Your task to perform on an android device: Open accessibility settings Image 0: 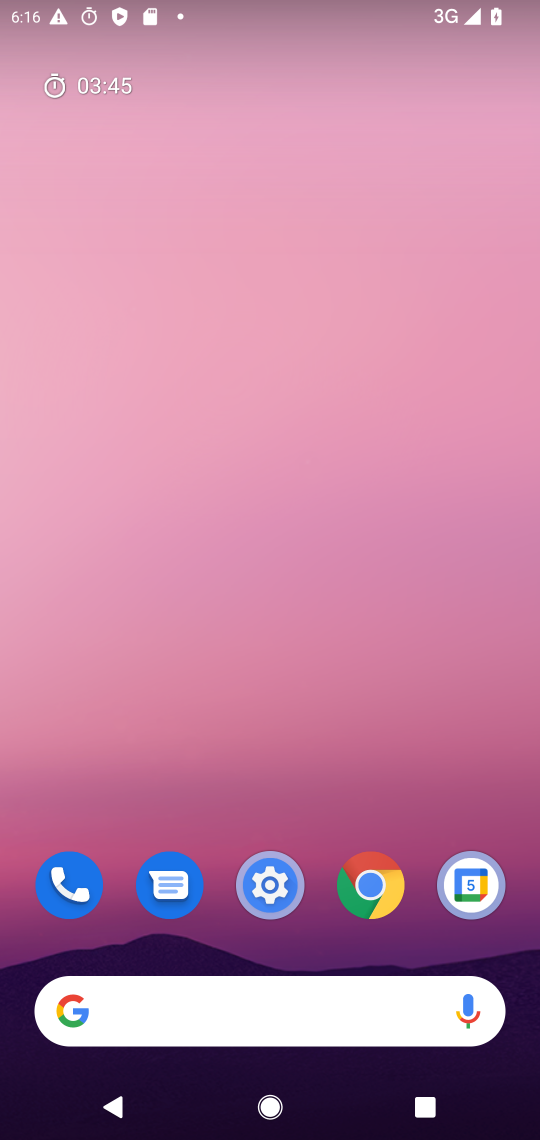
Step 0: drag from (300, 855) to (190, 16)
Your task to perform on an android device: Open accessibility settings Image 1: 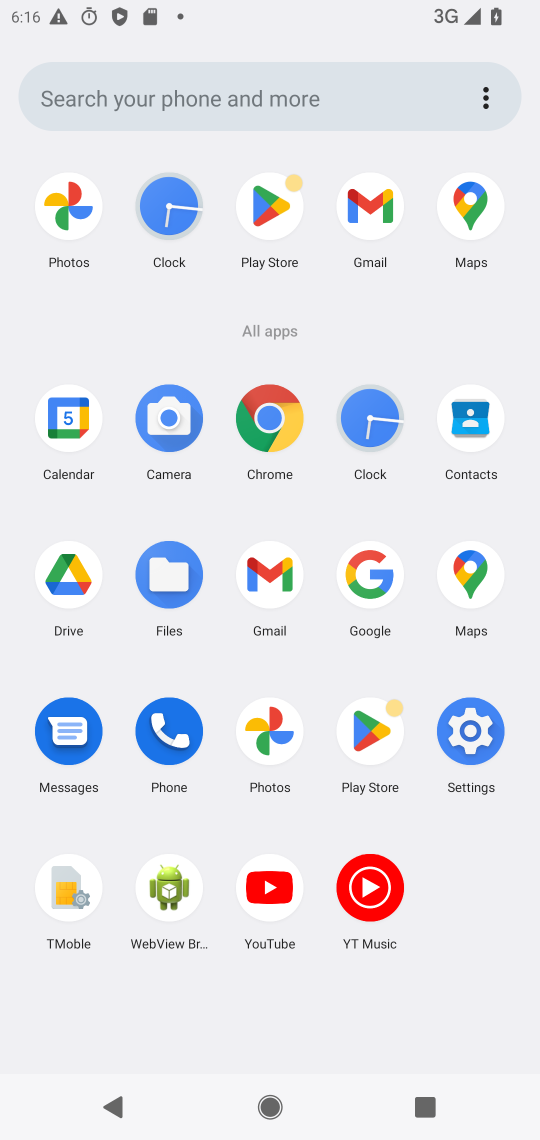
Step 1: click (464, 759)
Your task to perform on an android device: Open accessibility settings Image 2: 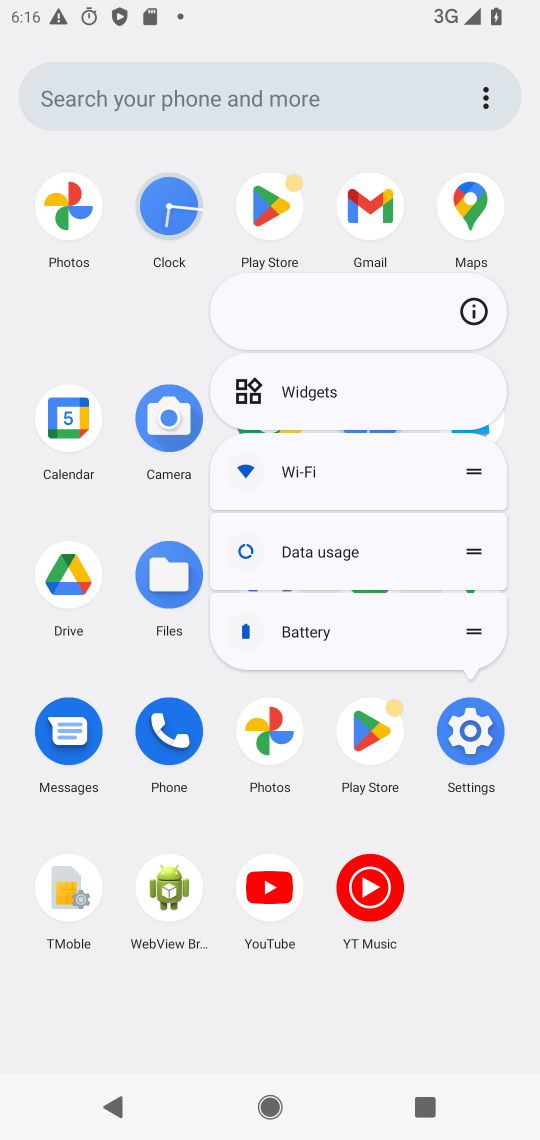
Step 2: click (447, 741)
Your task to perform on an android device: Open accessibility settings Image 3: 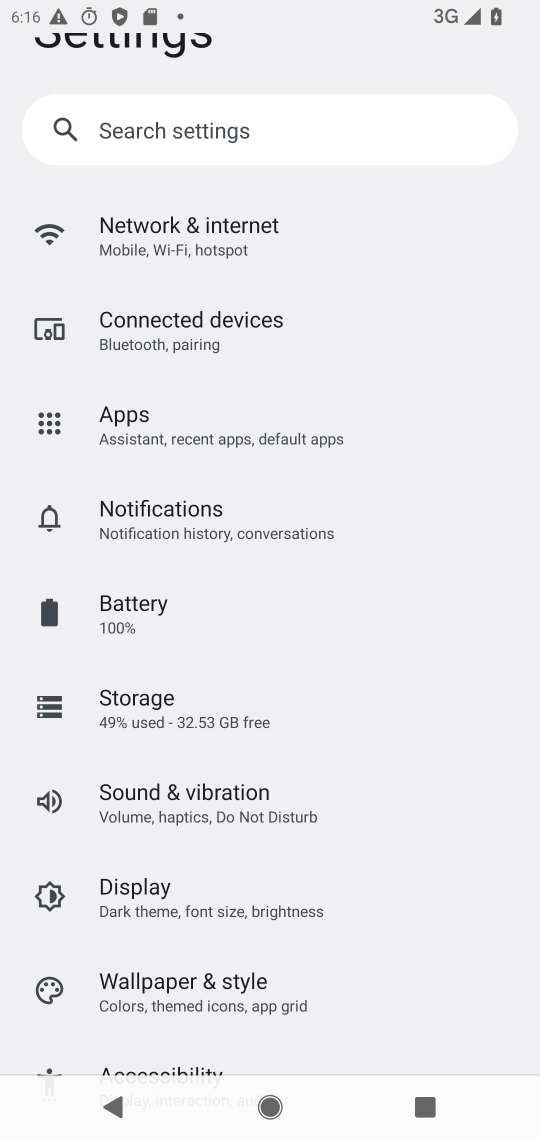
Step 3: drag from (213, 868) to (228, 556)
Your task to perform on an android device: Open accessibility settings Image 4: 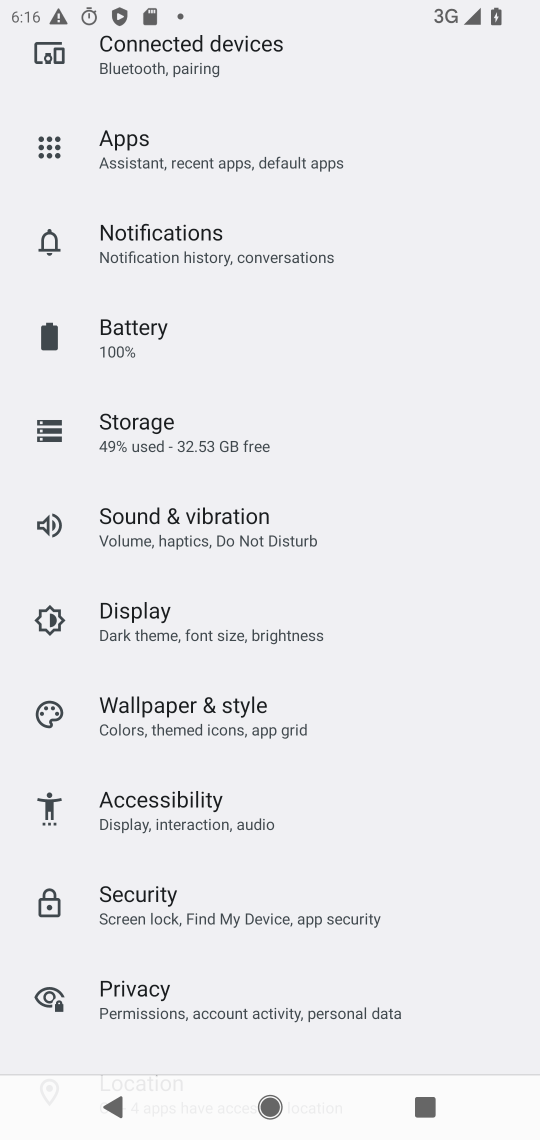
Step 4: click (161, 825)
Your task to perform on an android device: Open accessibility settings Image 5: 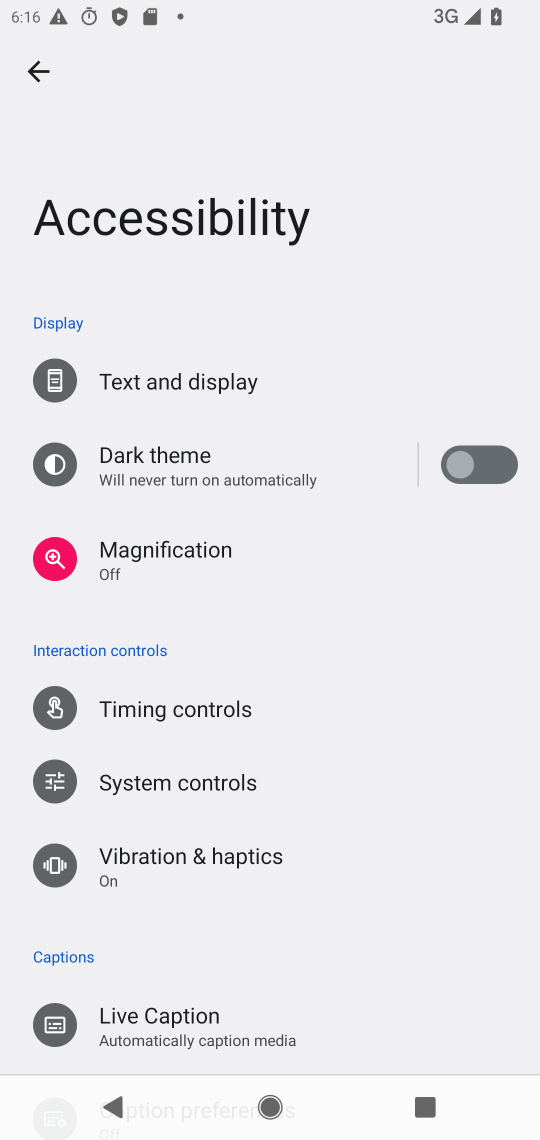
Step 5: task complete